Your task to perform on an android device: create a new album in the google photos Image 0: 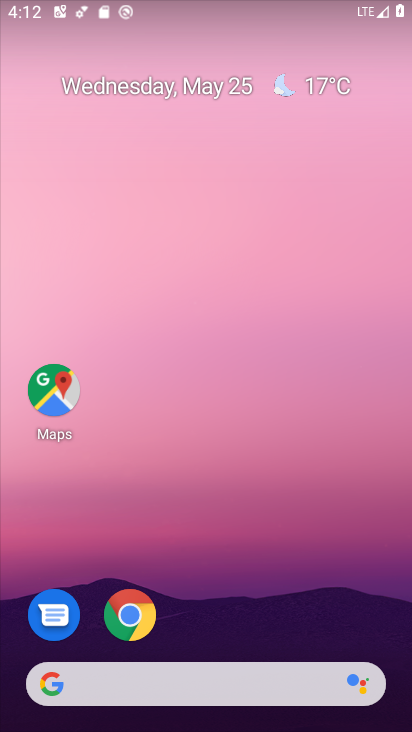
Step 0: drag from (310, 535) to (265, 64)
Your task to perform on an android device: create a new album in the google photos Image 1: 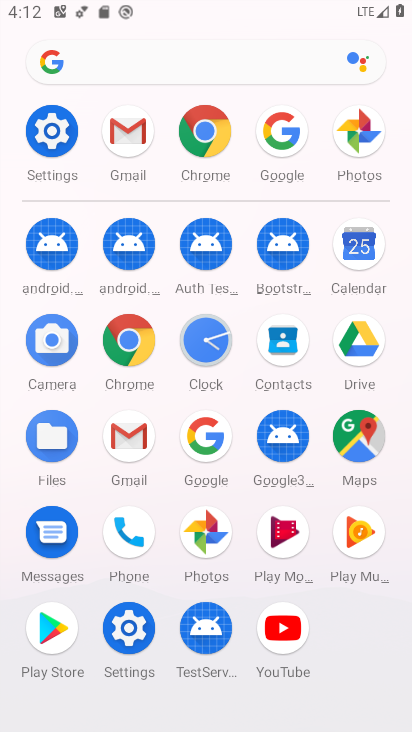
Step 1: click (211, 532)
Your task to perform on an android device: create a new album in the google photos Image 2: 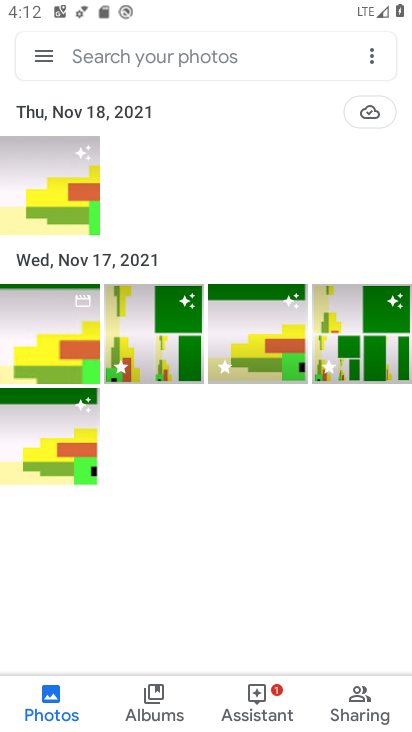
Step 2: click (159, 689)
Your task to perform on an android device: create a new album in the google photos Image 3: 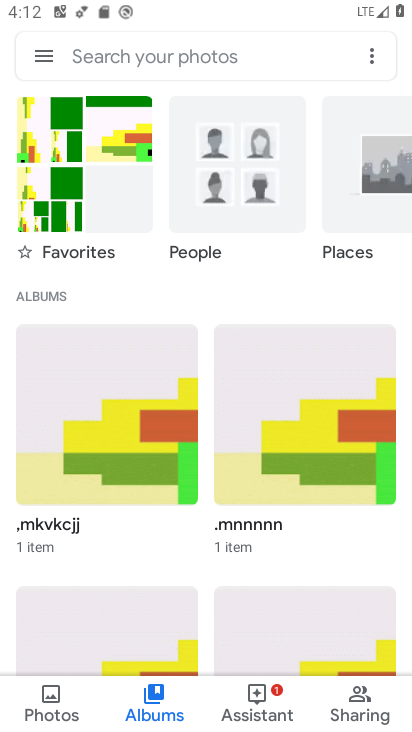
Step 3: drag from (190, 523) to (198, 183)
Your task to perform on an android device: create a new album in the google photos Image 4: 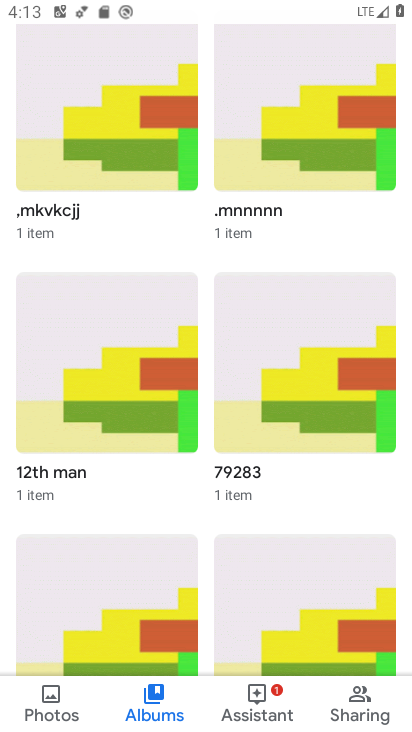
Step 4: drag from (144, 502) to (188, 164)
Your task to perform on an android device: create a new album in the google photos Image 5: 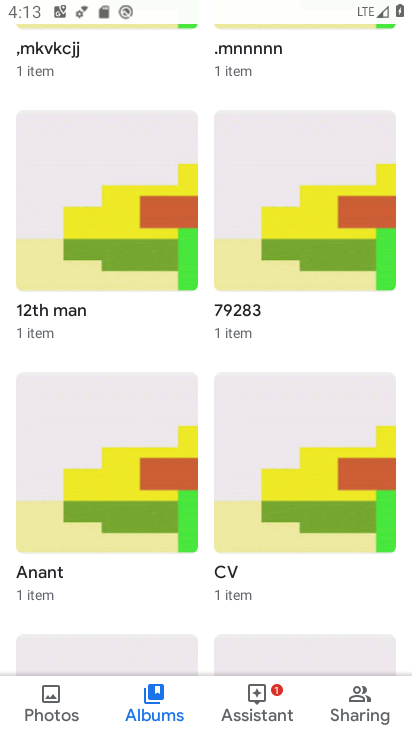
Step 5: drag from (184, 565) to (186, 79)
Your task to perform on an android device: create a new album in the google photos Image 6: 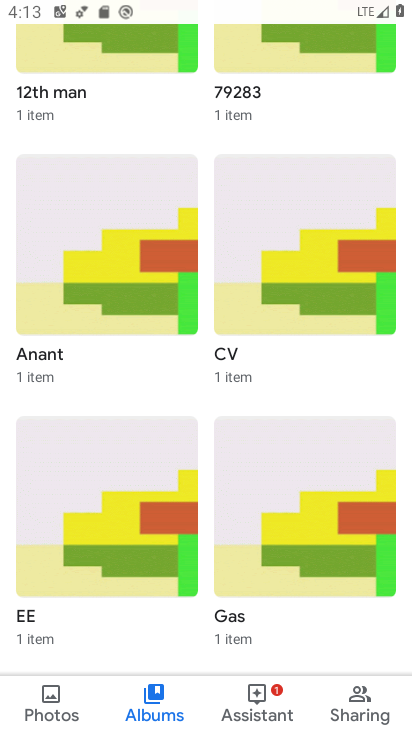
Step 6: drag from (178, 97) to (188, 729)
Your task to perform on an android device: create a new album in the google photos Image 7: 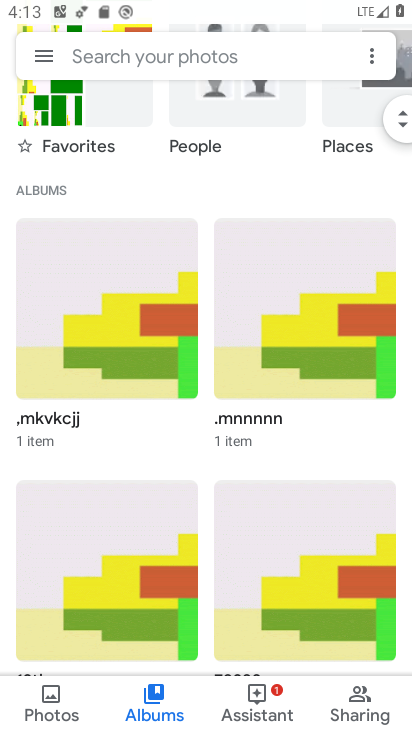
Step 7: drag from (178, 413) to (168, 563)
Your task to perform on an android device: create a new album in the google photos Image 8: 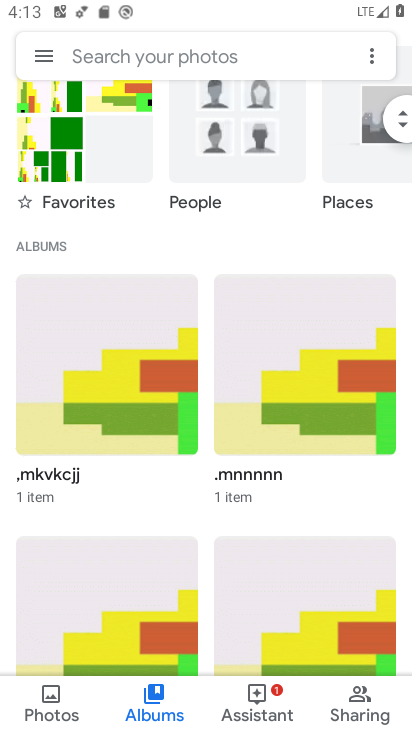
Step 8: click (373, 56)
Your task to perform on an android device: create a new album in the google photos Image 9: 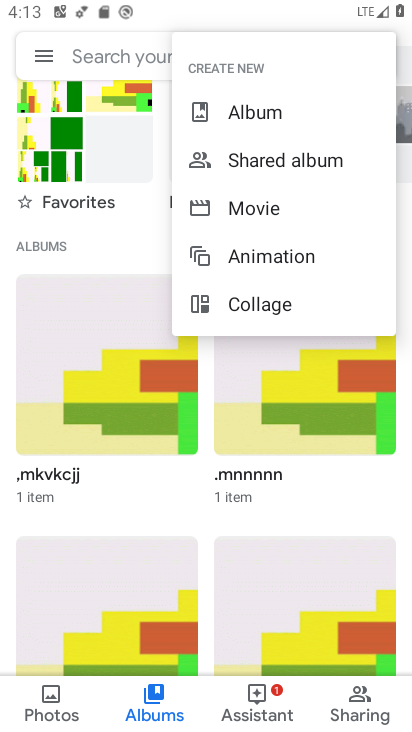
Step 9: click (269, 111)
Your task to perform on an android device: create a new album in the google photos Image 10: 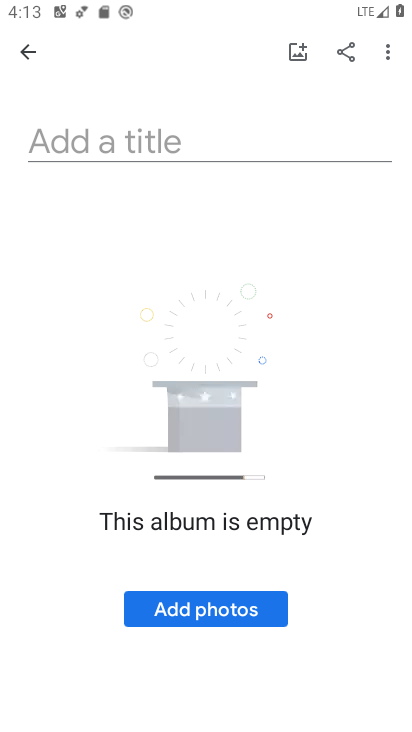
Step 10: click (176, 117)
Your task to perform on an android device: create a new album in the google photos Image 11: 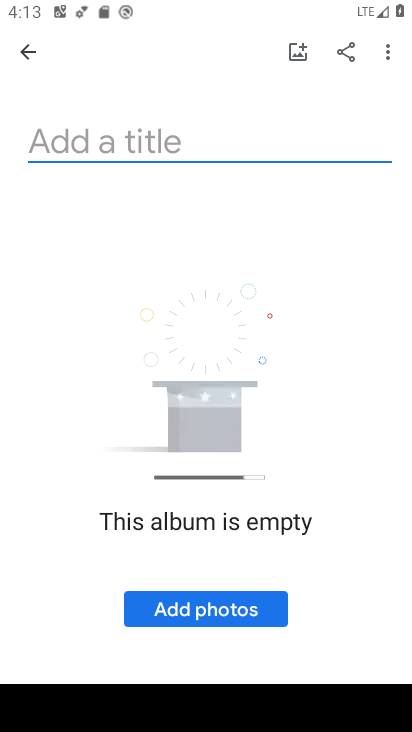
Step 11: type "gffhjgh"
Your task to perform on an android device: create a new album in the google photos Image 12: 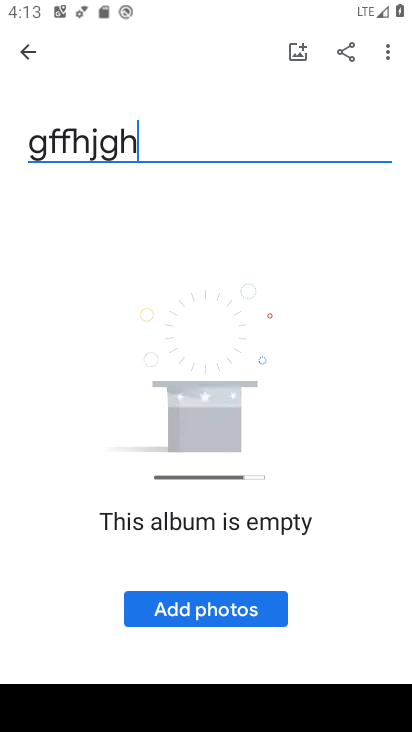
Step 12: click (254, 608)
Your task to perform on an android device: create a new album in the google photos Image 13: 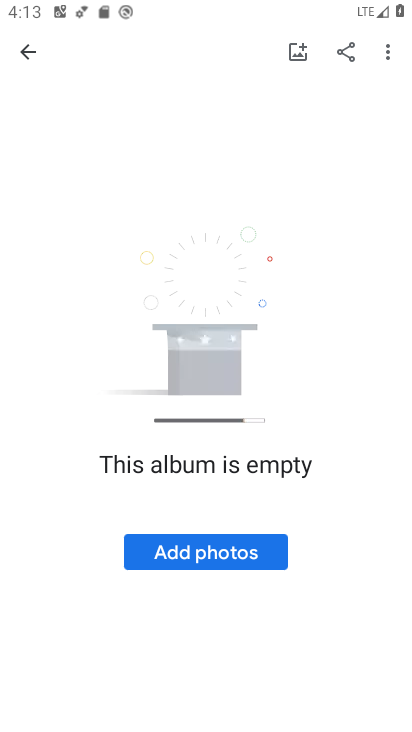
Step 13: click (248, 556)
Your task to perform on an android device: create a new album in the google photos Image 14: 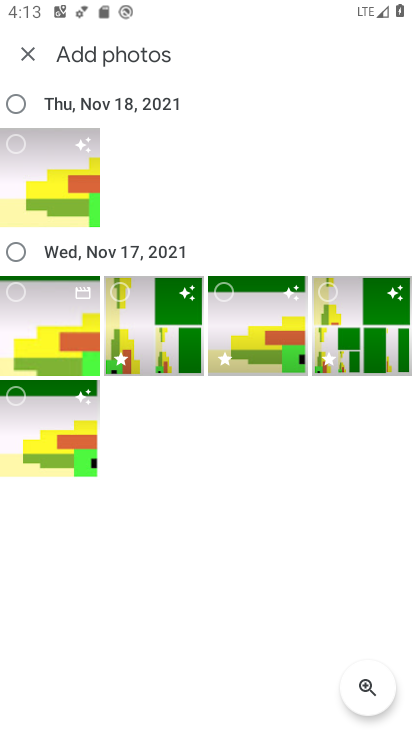
Step 14: click (58, 332)
Your task to perform on an android device: create a new album in the google photos Image 15: 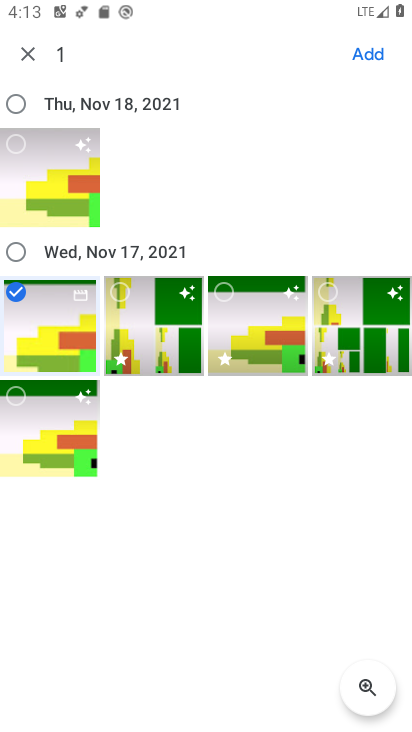
Step 15: click (355, 352)
Your task to perform on an android device: create a new album in the google photos Image 16: 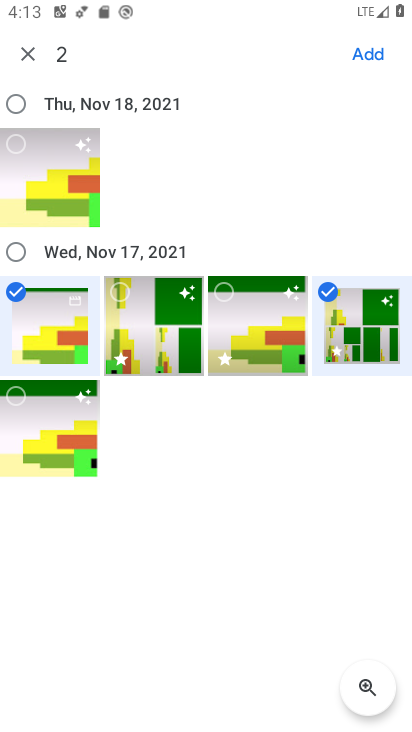
Step 16: click (378, 51)
Your task to perform on an android device: create a new album in the google photos Image 17: 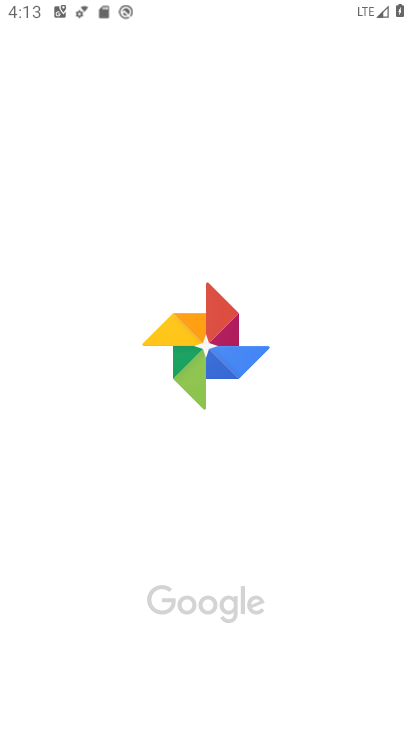
Step 17: task complete